Your task to perform on an android device: open chrome privacy settings Image 0: 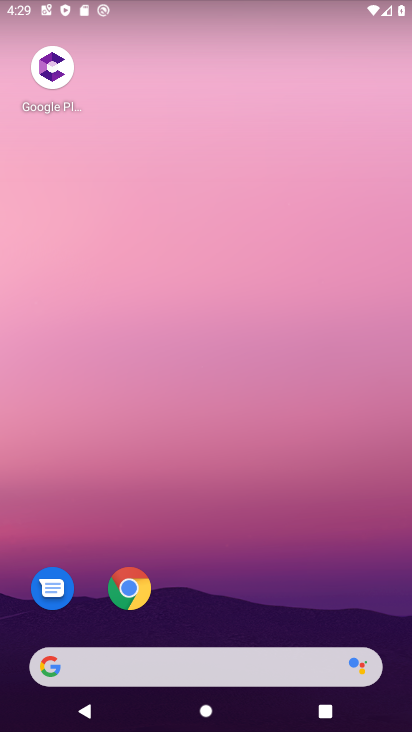
Step 0: click (136, 596)
Your task to perform on an android device: open chrome privacy settings Image 1: 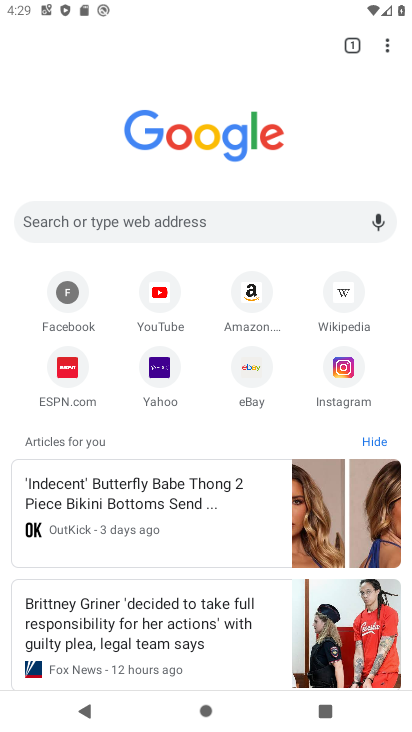
Step 1: click (394, 48)
Your task to perform on an android device: open chrome privacy settings Image 2: 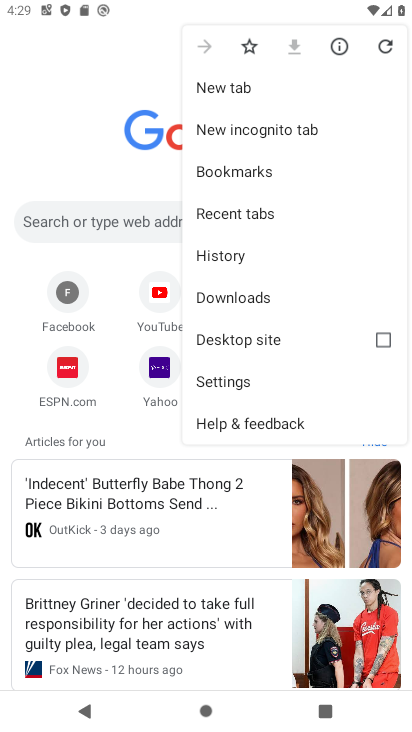
Step 2: click (234, 378)
Your task to perform on an android device: open chrome privacy settings Image 3: 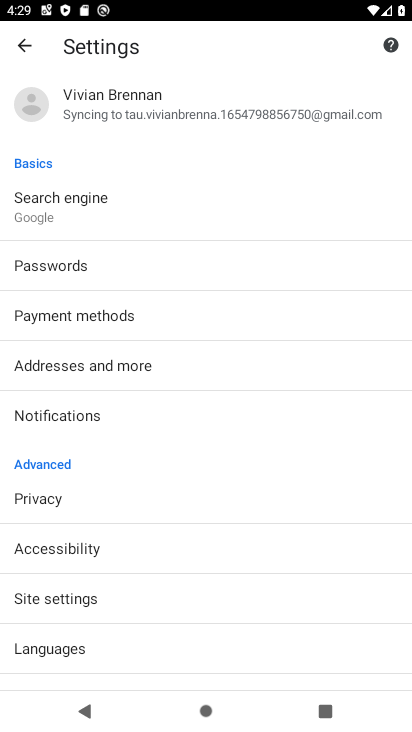
Step 3: click (57, 502)
Your task to perform on an android device: open chrome privacy settings Image 4: 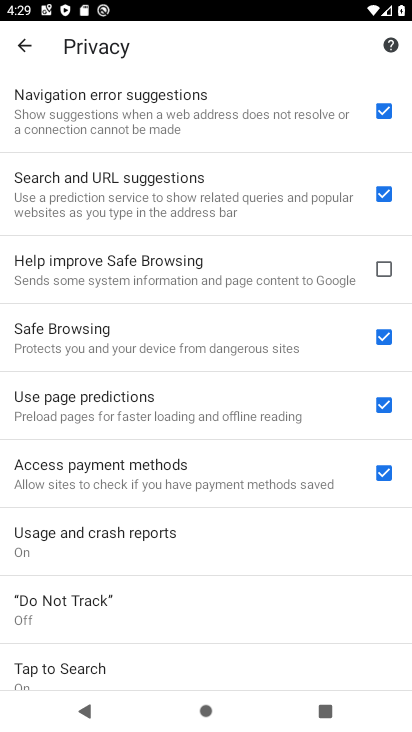
Step 4: task complete